Your task to perform on an android device: turn off data saver in the chrome app Image 0: 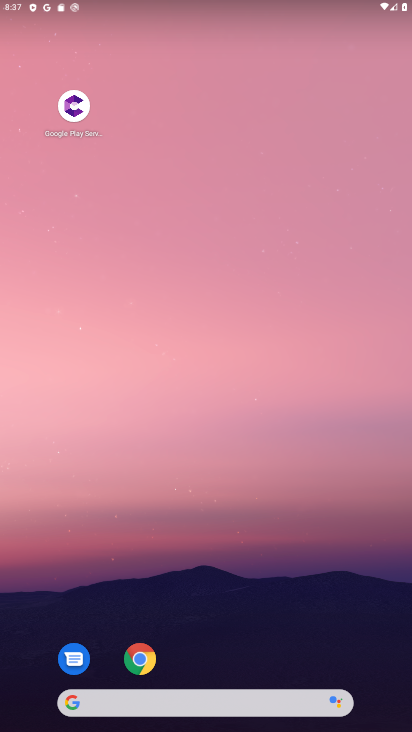
Step 0: click (142, 662)
Your task to perform on an android device: turn off data saver in the chrome app Image 1: 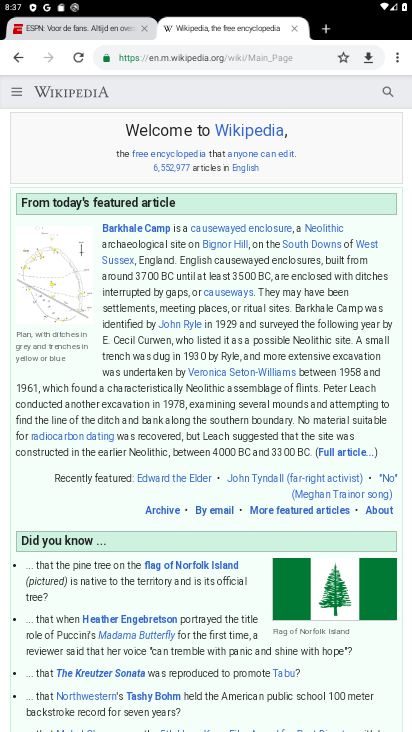
Step 1: click (395, 57)
Your task to perform on an android device: turn off data saver in the chrome app Image 2: 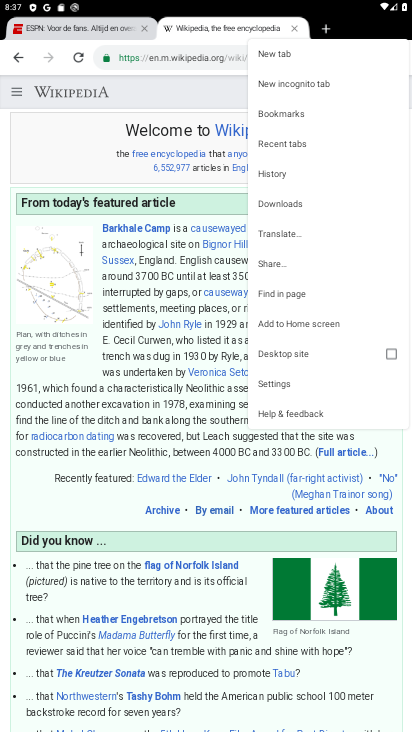
Step 2: click (265, 384)
Your task to perform on an android device: turn off data saver in the chrome app Image 3: 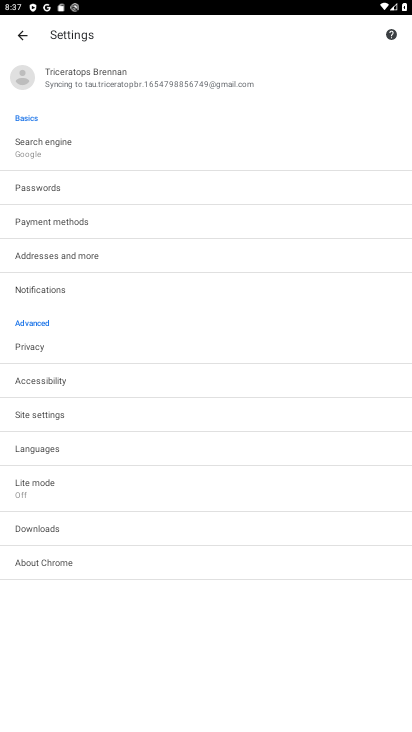
Step 3: click (93, 492)
Your task to perform on an android device: turn off data saver in the chrome app Image 4: 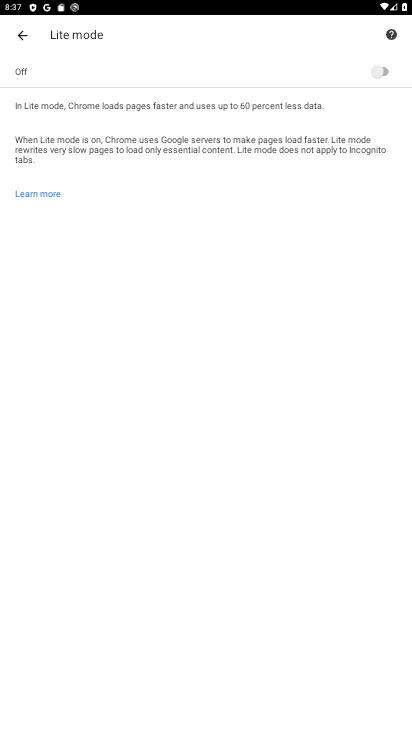
Step 4: task complete